Your task to perform on an android device: set the timer Image 0: 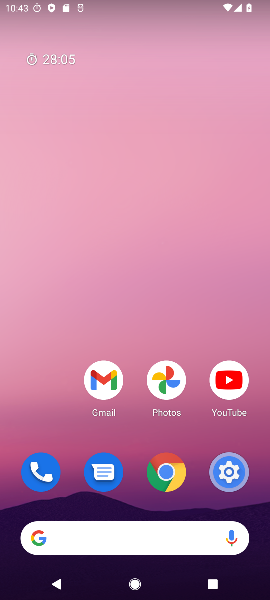
Step 0: drag from (198, 334) to (147, 18)
Your task to perform on an android device: set the timer Image 1: 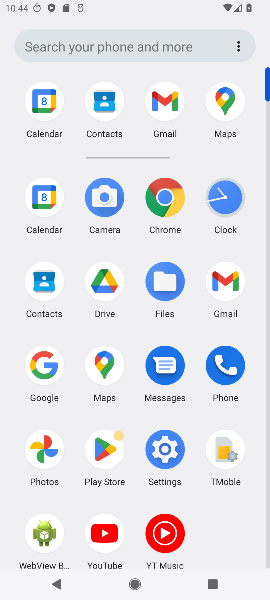
Step 1: click (223, 195)
Your task to perform on an android device: set the timer Image 2: 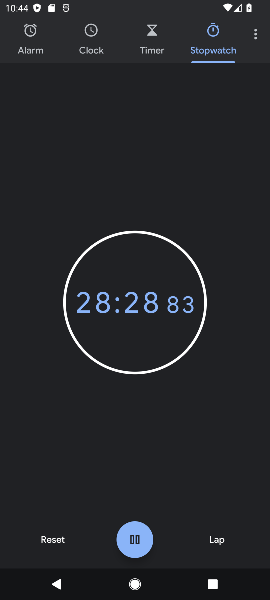
Step 2: click (152, 31)
Your task to perform on an android device: set the timer Image 3: 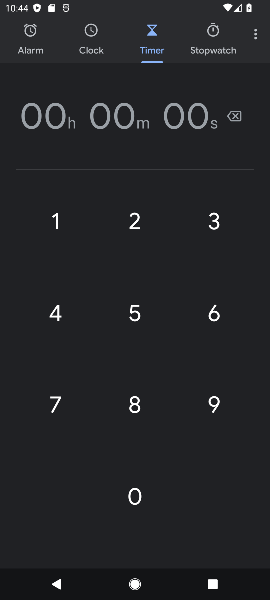
Step 3: type "100000"
Your task to perform on an android device: set the timer Image 4: 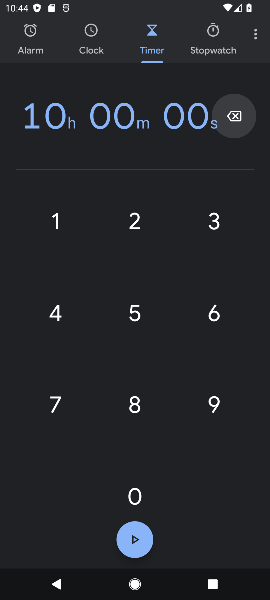
Step 4: click (134, 556)
Your task to perform on an android device: set the timer Image 5: 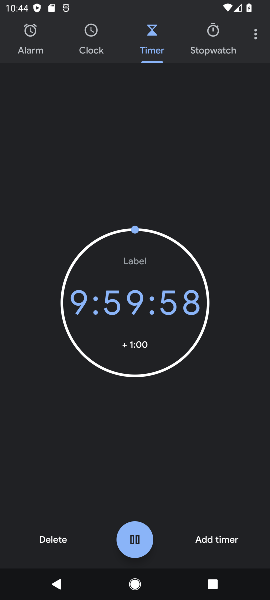
Step 5: task complete